Your task to perform on an android device: add a contact in the contacts app Image 0: 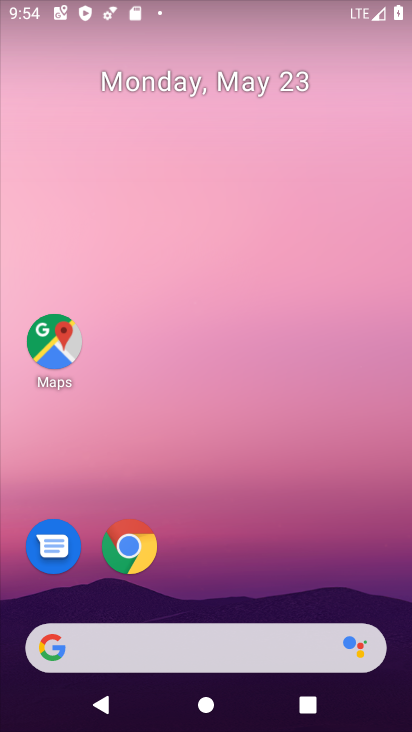
Step 0: drag from (380, 604) to (344, 119)
Your task to perform on an android device: add a contact in the contacts app Image 1: 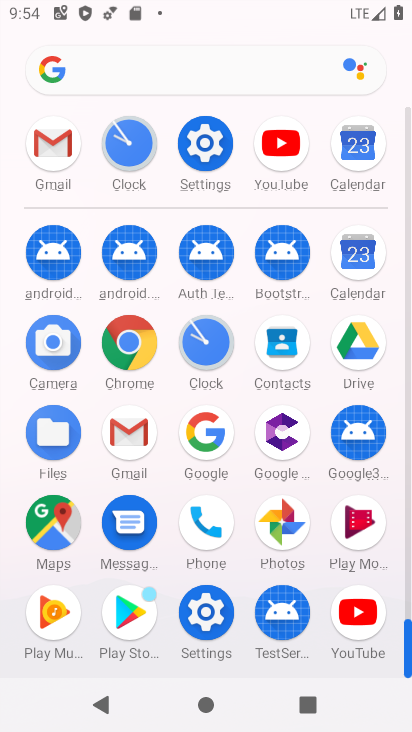
Step 1: click (284, 341)
Your task to perform on an android device: add a contact in the contacts app Image 2: 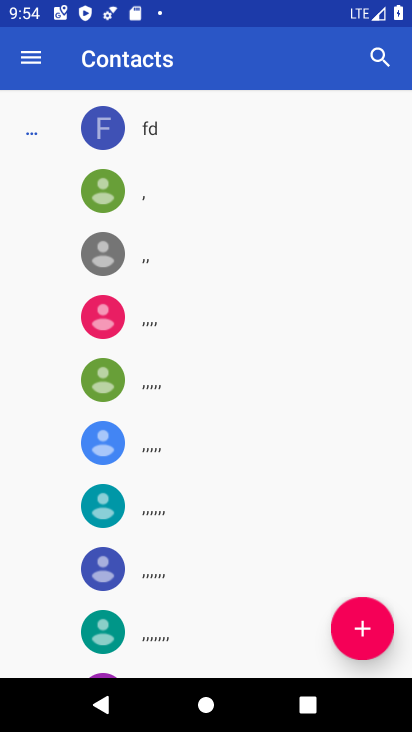
Step 2: click (356, 626)
Your task to perform on an android device: add a contact in the contacts app Image 3: 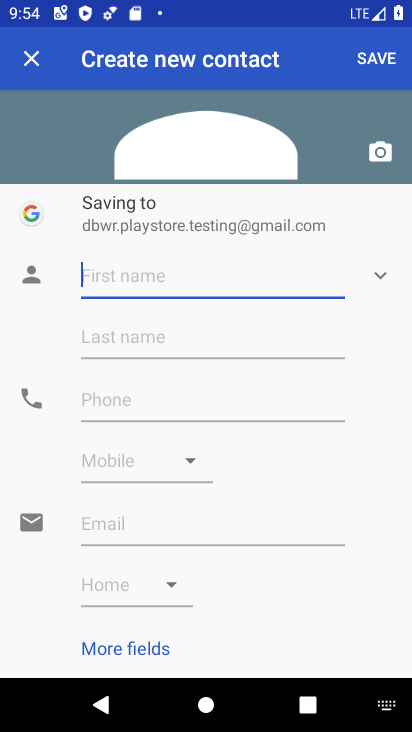
Step 3: type "erdhdjssdf"
Your task to perform on an android device: add a contact in the contacts app Image 4: 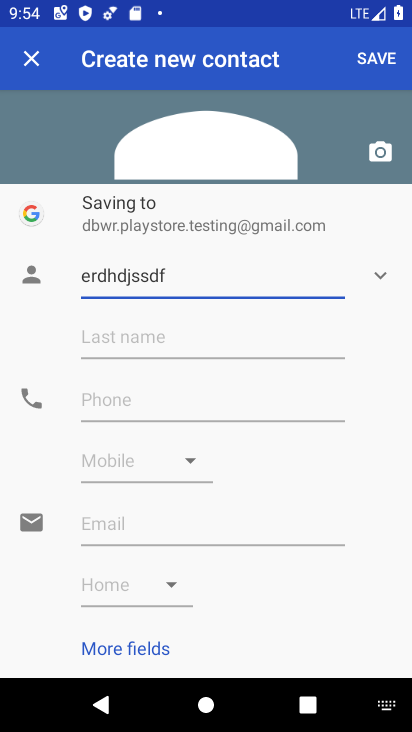
Step 4: click (112, 400)
Your task to perform on an android device: add a contact in the contacts app Image 5: 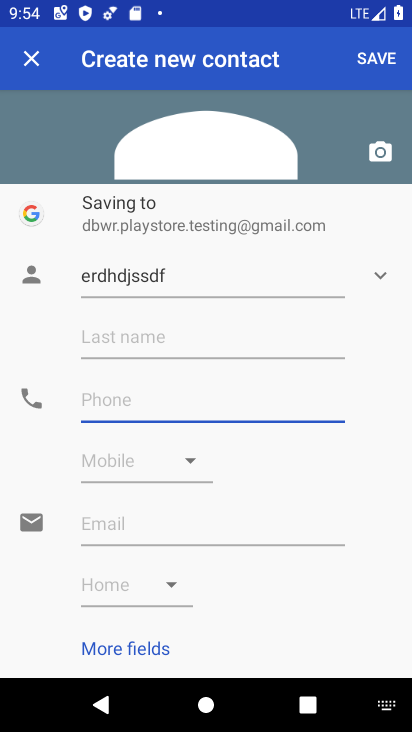
Step 5: type "0977653389"
Your task to perform on an android device: add a contact in the contacts app Image 6: 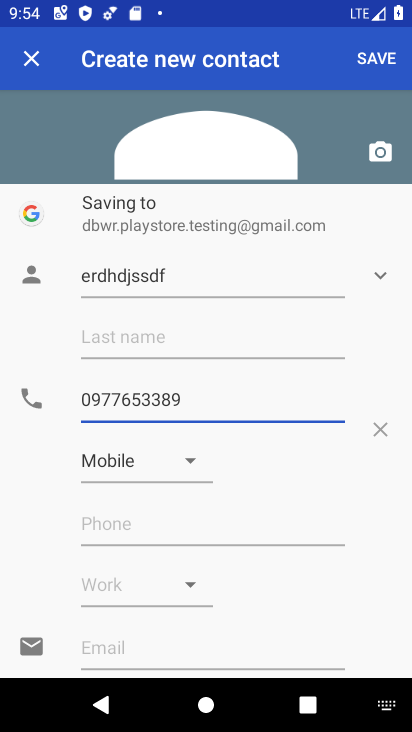
Step 6: click (185, 457)
Your task to perform on an android device: add a contact in the contacts app Image 7: 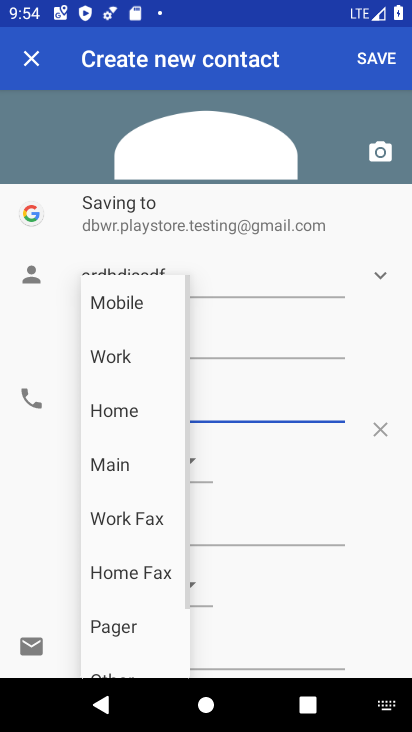
Step 7: click (121, 362)
Your task to perform on an android device: add a contact in the contacts app Image 8: 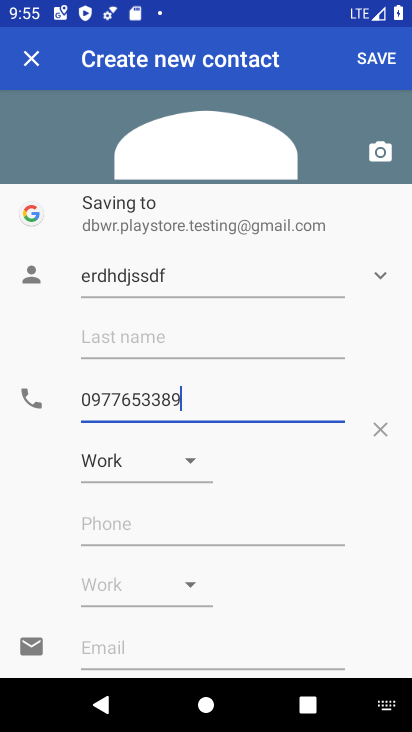
Step 8: click (373, 51)
Your task to perform on an android device: add a contact in the contacts app Image 9: 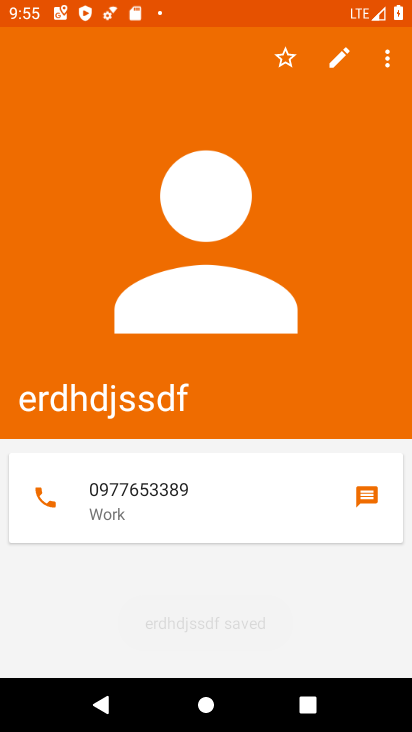
Step 9: task complete